Your task to perform on an android device: Go to settings Image 0: 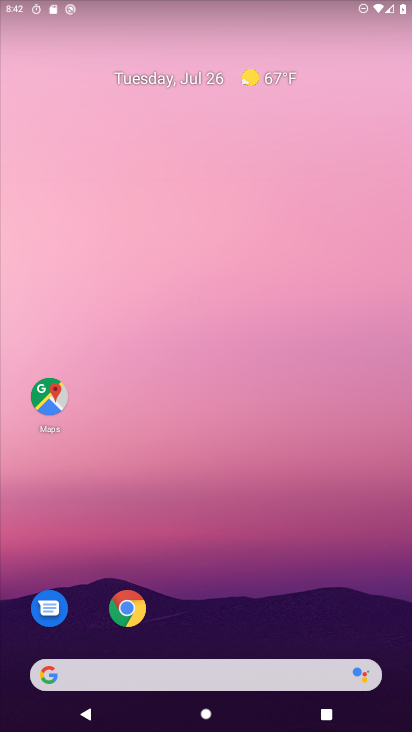
Step 0: drag from (216, 647) to (288, 114)
Your task to perform on an android device: Go to settings Image 1: 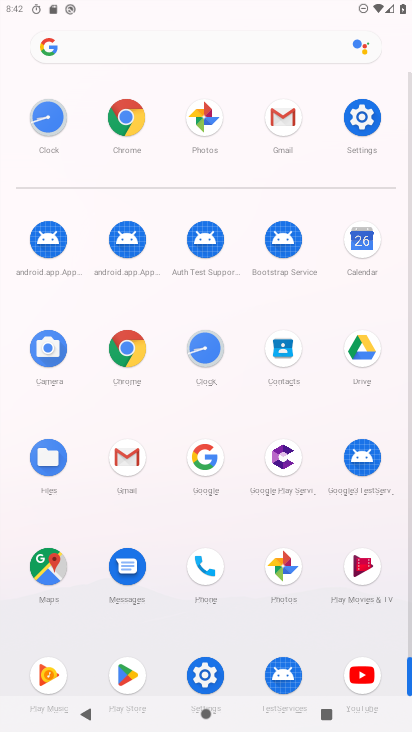
Step 1: click (204, 666)
Your task to perform on an android device: Go to settings Image 2: 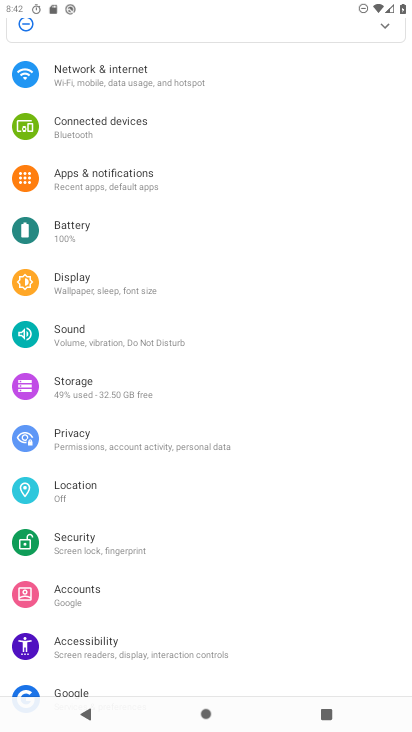
Step 2: task complete